Your task to perform on an android device: Open notification settings Image 0: 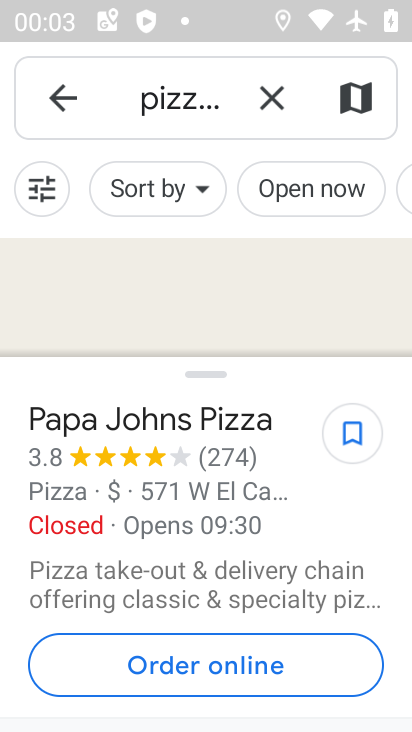
Step 0: press home button
Your task to perform on an android device: Open notification settings Image 1: 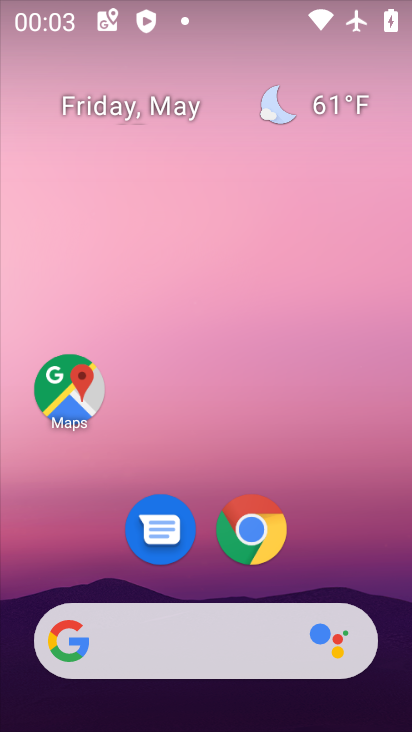
Step 1: drag from (330, 571) to (283, 173)
Your task to perform on an android device: Open notification settings Image 2: 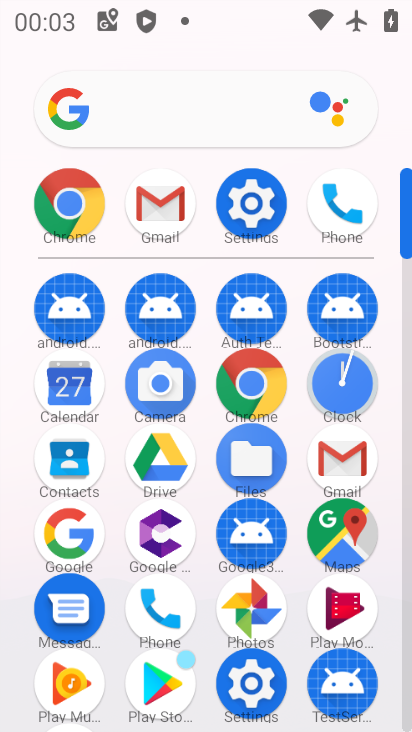
Step 2: click (247, 220)
Your task to perform on an android device: Open notification settings Image 3: 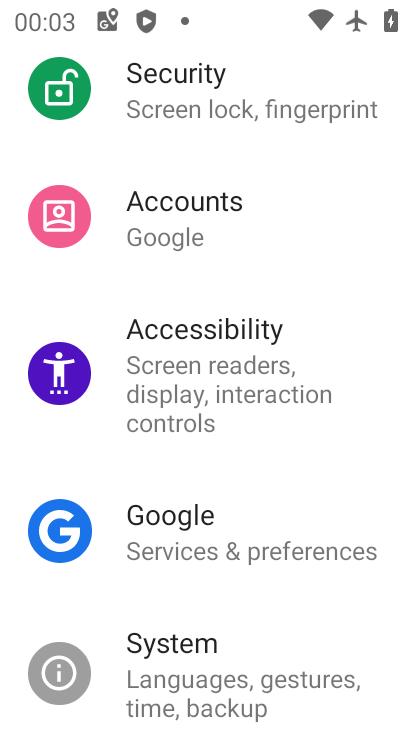
Step 3: drag from (175, 353) to (157, 586)
Your task to perform on an android device: Open notification settings Image 4: 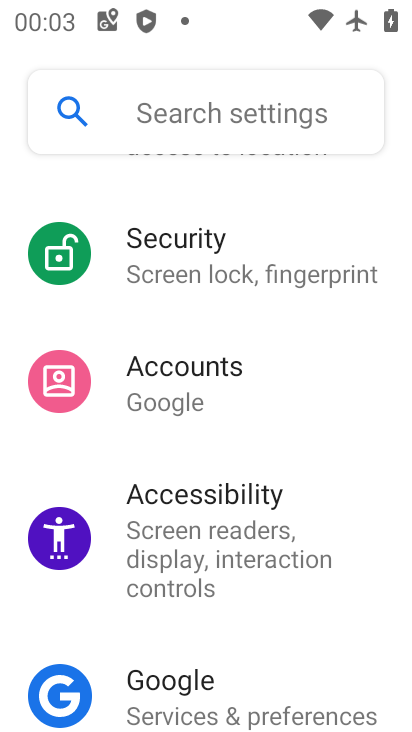
Step 4: drag from (182, 315) to (170, 564)
Your task to perform on an android device: Open notification settings Image 5: 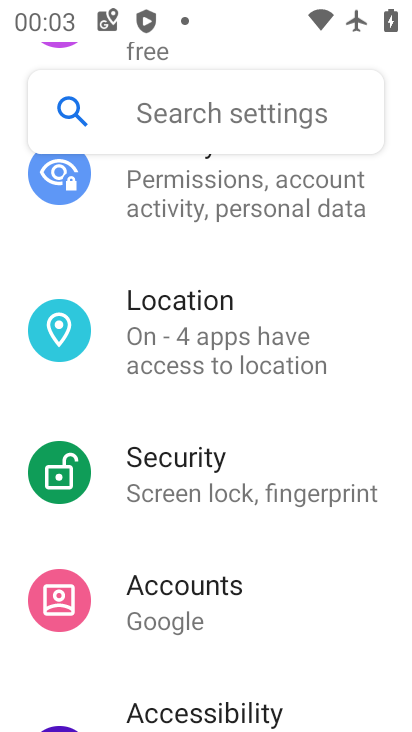
Step 5: click (195, 237)
Your task to perform on an android device: Open notification settings Image 6: 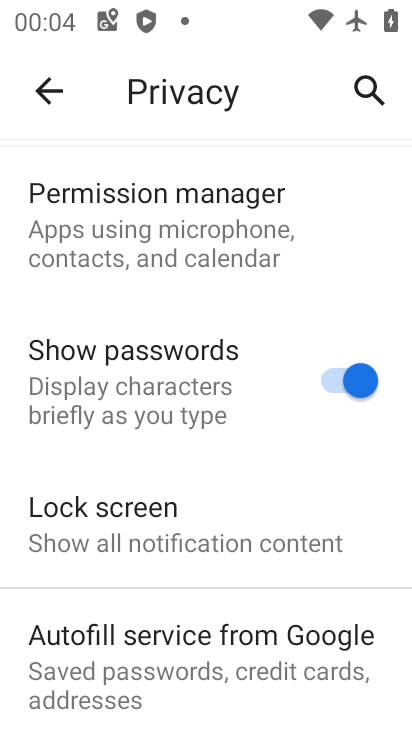
Step 6: task complete